Your task to perform on an android device: turn off notifications in google photos Image 0: 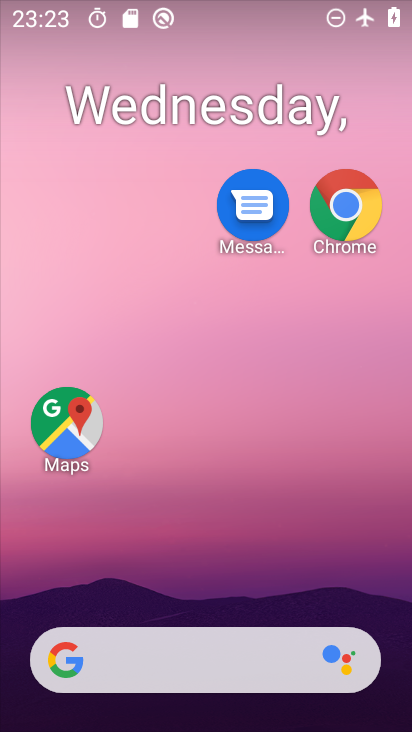
Step 0: click (355, 1)
Your task to perform on an android device: turn off notifications in google photos Image 1: 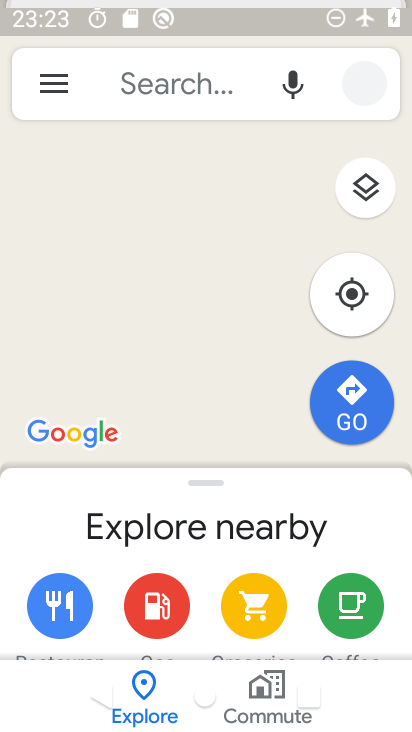
Step 1: drag from (219, 460) to (271, 0)
Your task to perform on an android device: turn off notifications in google photos Image 2: 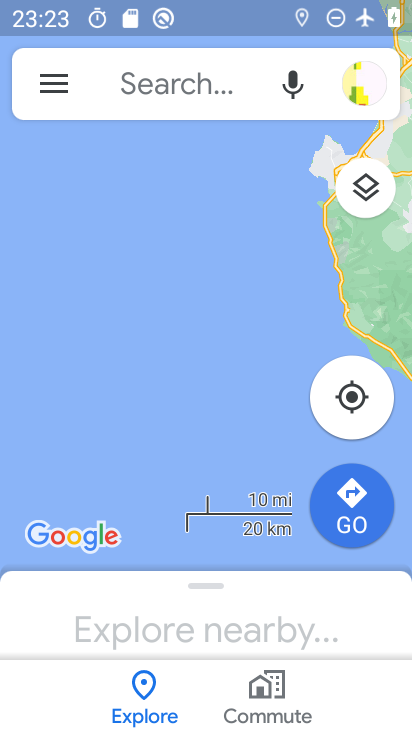
Step 2: drag from (227, 552) to (233, 12)
Your task to perform on an android device: turn off notifications in google photos Image 3: 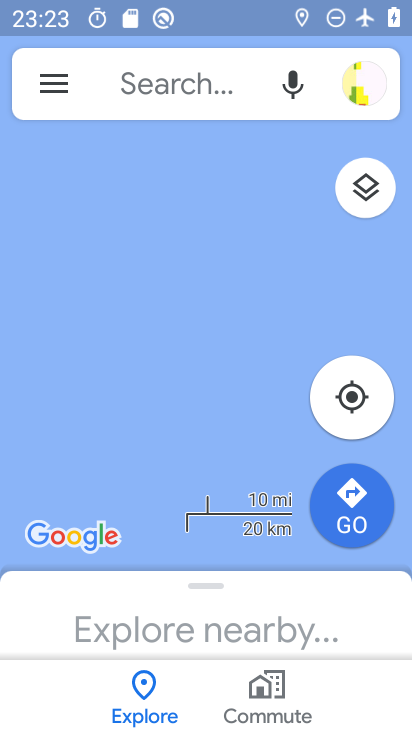
Step 3: drag from (267, 446) to (366, 44)
Your task to perform on an android device: turn off notifications in google photos Image 4: 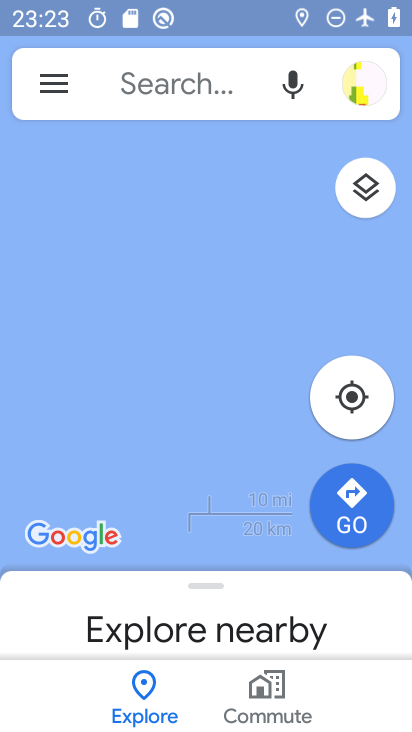
Step 4: press home button
Your task to perform on an android device: turn off notifications in google photos Image 5: 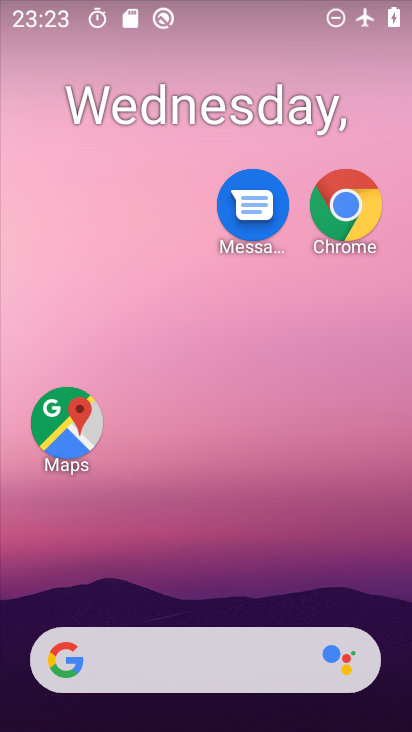
Step 5: drag from (222, 485) to (237, 2)
Your task to perform on an android device: turn off notifications in google photos Image 6: 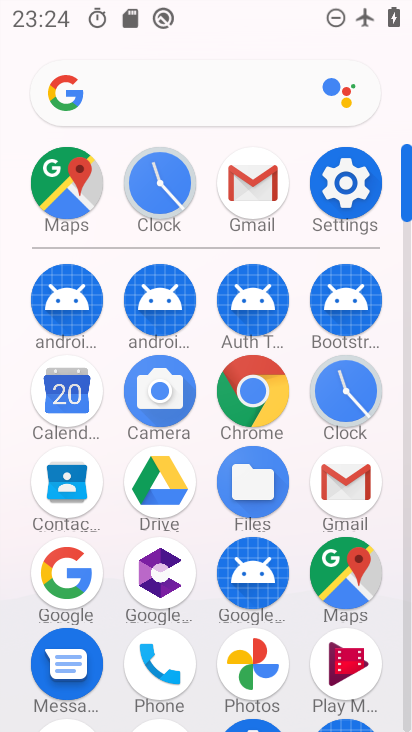
Step 6: click (260, 645)
Your task to perform on an android device: turn off notifications in google photos Image 7: 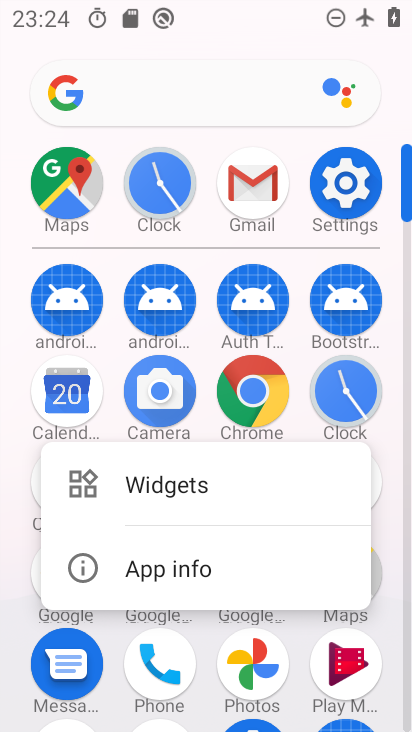
Step 7: click (155, 567)
Your task to perform on an android device: turn off notifications in google photos Image 8: 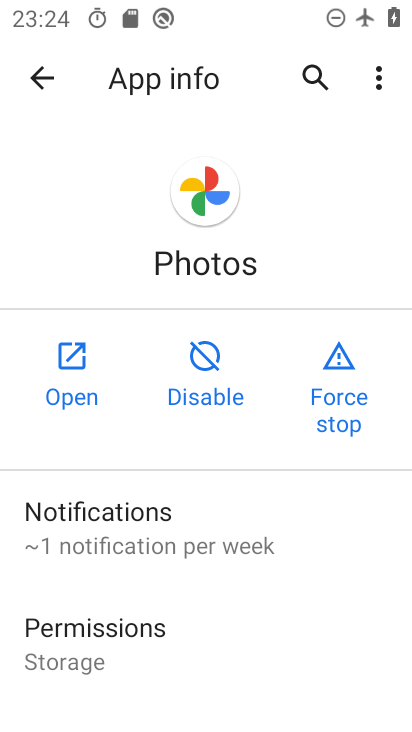
Step 8: click (82, 342)
Your task to perform on an android device: turn off notifications in google photos Image 9: 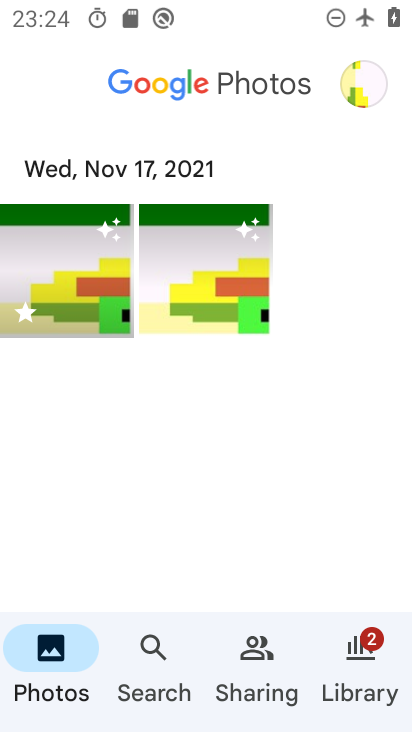
Step 9: click (367, 90)
Your task to perform on an android device: turn off notifications in google photos Image 10: 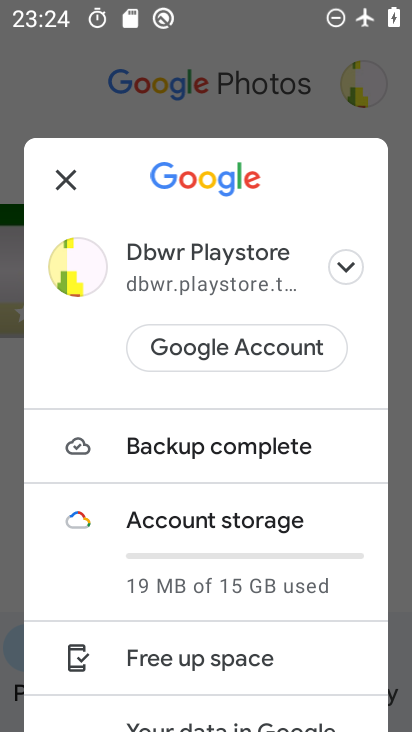
Step 10: drag from (240, 498) to (307, 110)
Your task to perform on an android device: turn off notifications in google photos Image 11: 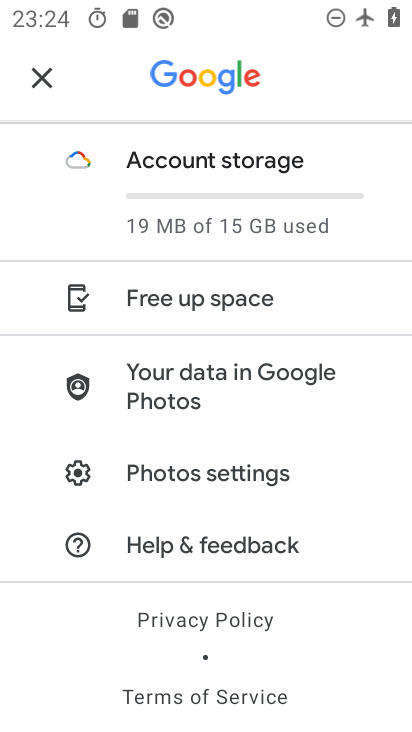
Step 11: click (191, 488)
Your task to perform on an android device: turn off notifications in google photos Image 12: 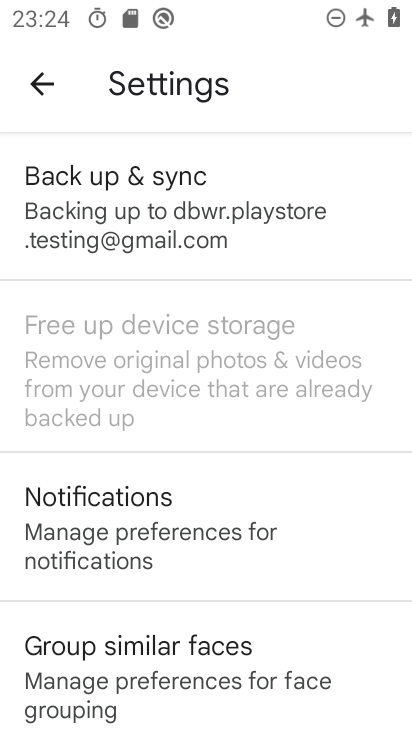
Step 12: drag from (219, 576) to (292, 128)
Your task to perform on an android device: turn off notifications in google photos Image 13: 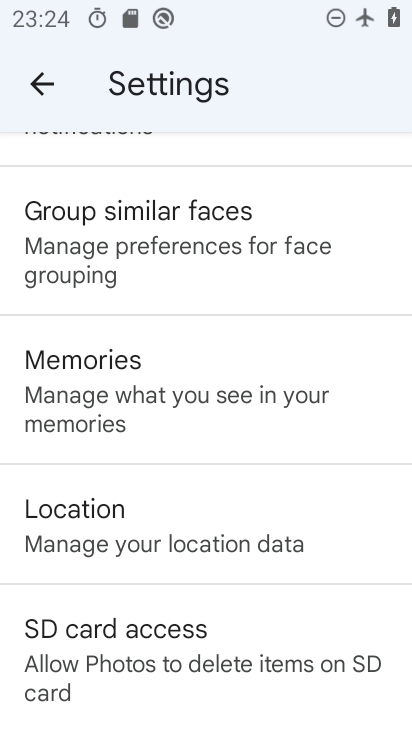
Step 13: drag from (205, 517) to (309, 117)
Your task to perform on an android device: turn off notifications in google photos Image 14: 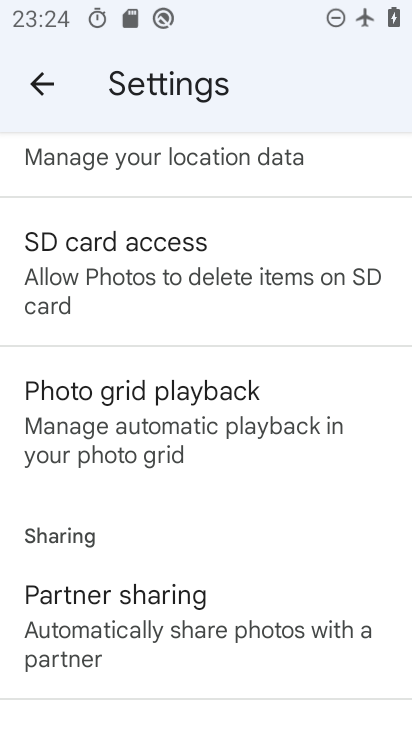
Step 14: drag from (199, 214) to (223, 724)
Your task to perform on an android device: turn off notifications in google photos Image 15: 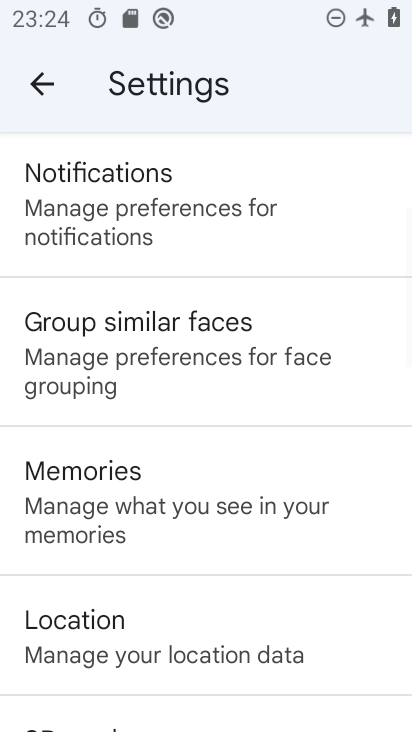
Step 15: drag from (184, 253) to (268, 729)
Your task to perform on an android device: turn off notifications in google photos Image 16: 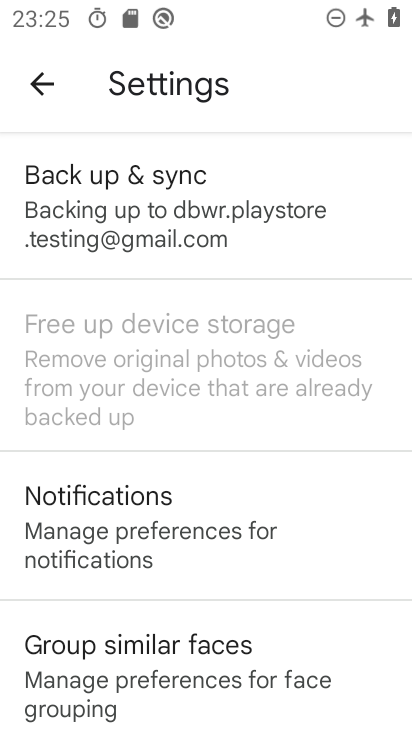
Step 16: click (146, 528)
Your task to perform on an android device: turn off notifications in google photos Image 17: 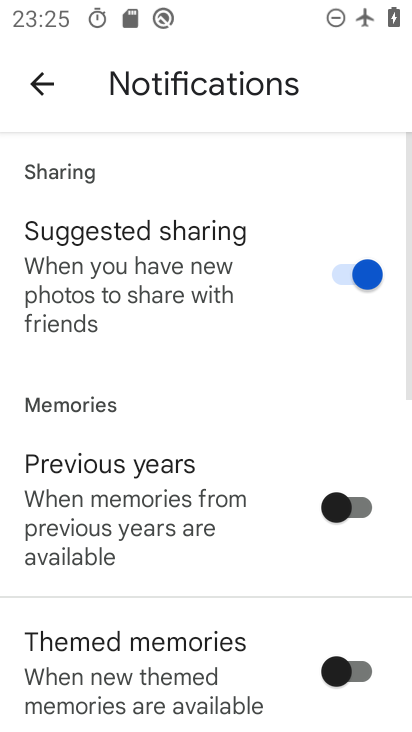
Step 17: drag from (161, 569) to (261, 159)
Your task to perform on an android device: turn off notifications in google photos Image 18: 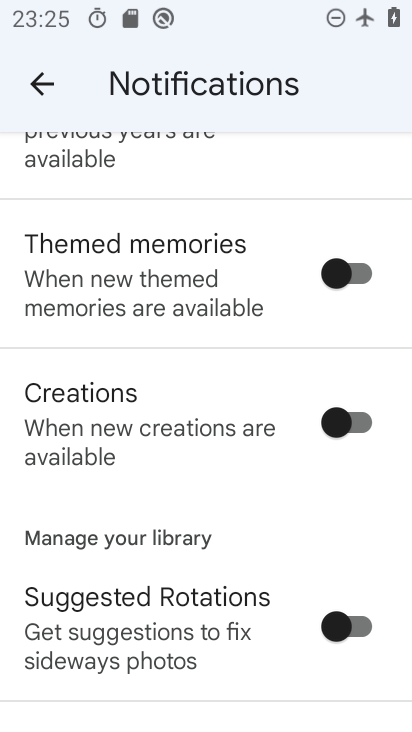
Step 18: drag from (190, 519) to (258, 271)
Your task to perform on an android device: turn off notifications in google photos Image 19: 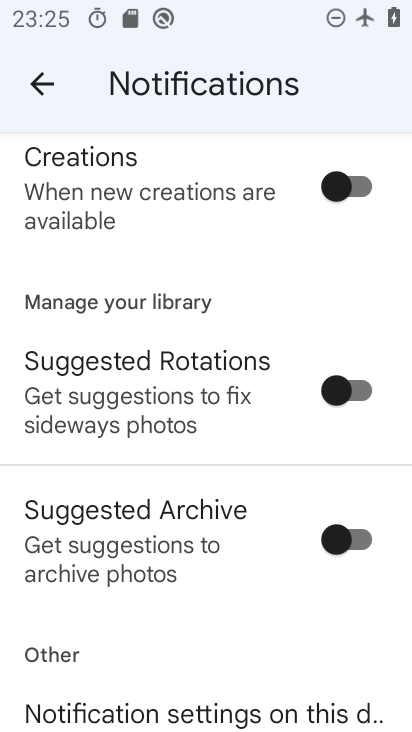
Step 19: drag from (192, 612) to (289, 306)
Your task to perform on an android device: turn off notifications in google photos Image 20: 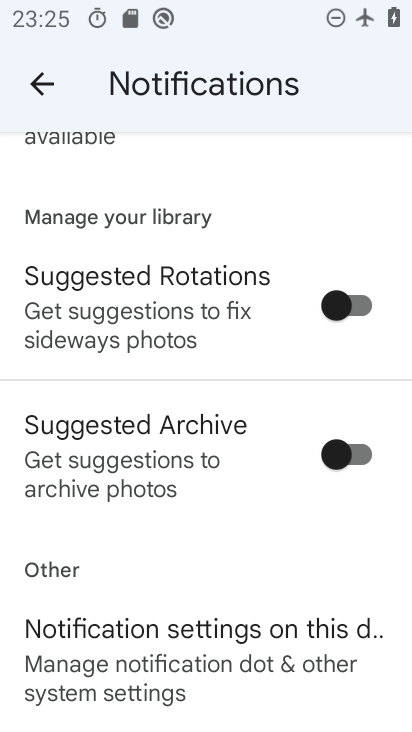
Step 20: drag from (196, 635) to (242, 334)
Your task to perform on an android device: turn off notifications in google photos Image 21: 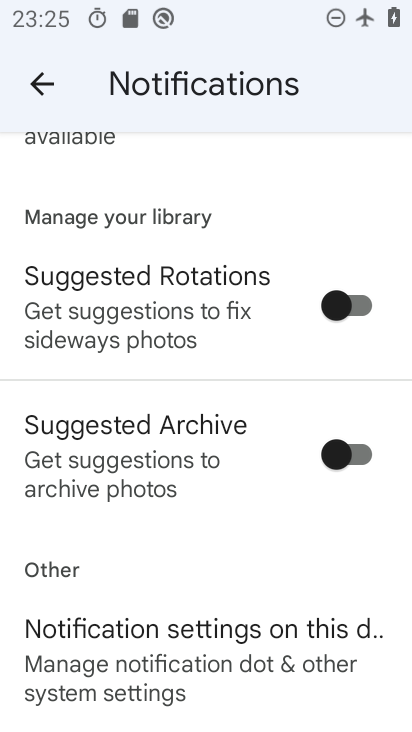
Step 21: click (224, 663)
Your task to perform on an android device: turn off notifications in google photos Image 22: 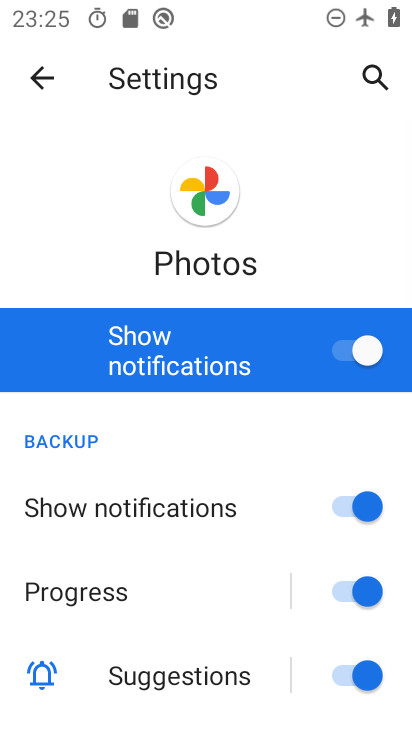
Step 22: click (323, 334)
Your task to perform on an android device: turn off notifications in google photos Image 23: 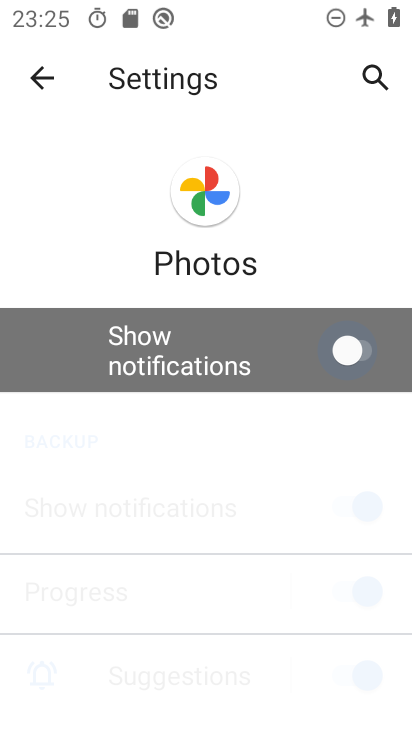
Step 23: task complete